Your task to perform on an android device: refresh tabs in the chrome app Image 0: 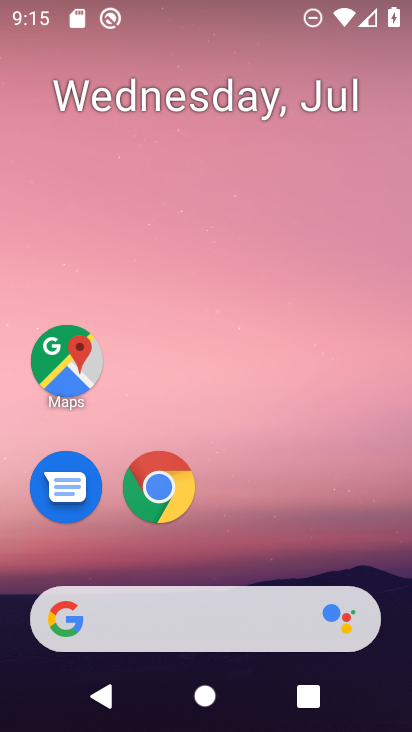
Step 0: drag from (401, 564) to (373, 23)
Your task to perform on an android device: refresh tabs in the chrome app Image 1: 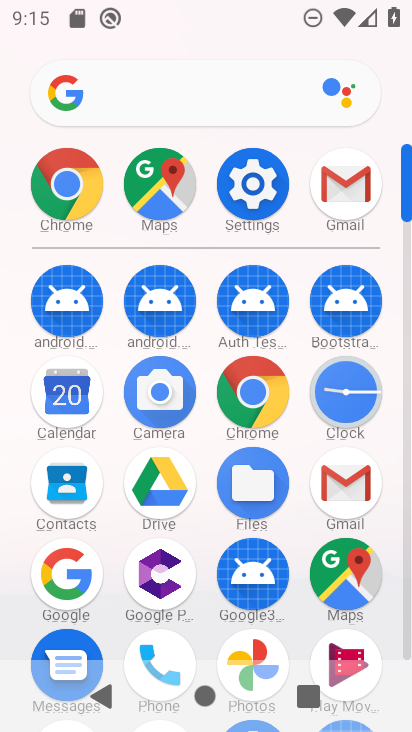
Step 1: click (258, 387)
Your task to perform on an android device: refresh tabs in the chrome app Image 2: 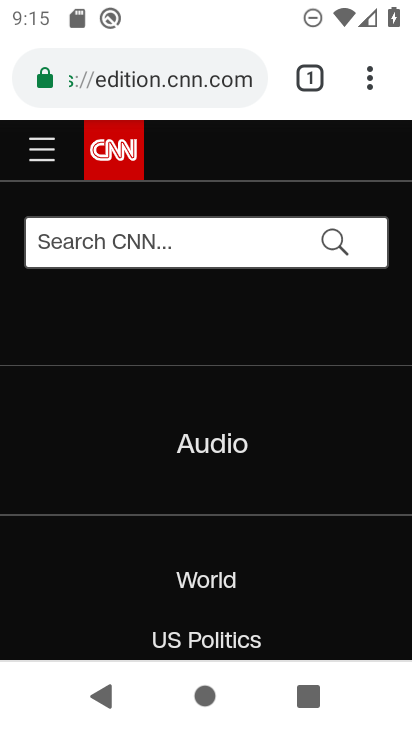
Step 2: click (368, 85)
Your task to perform on an android device: refresh tabs in the chrome app Image 3: 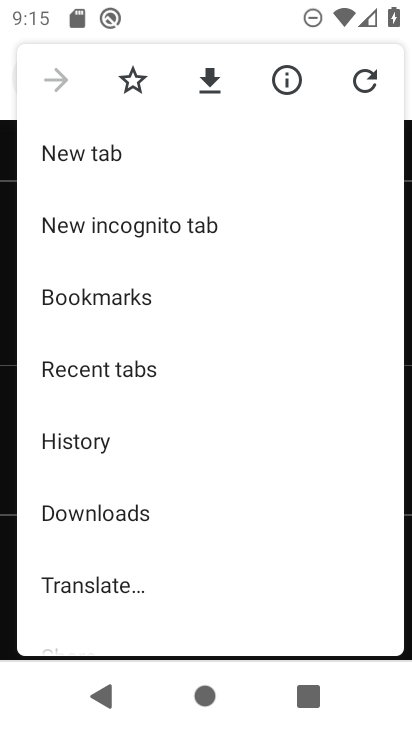
Step 3: click (363, 80)
Your task to perform on an android device: refresh tabs in the chrome app Image 4: 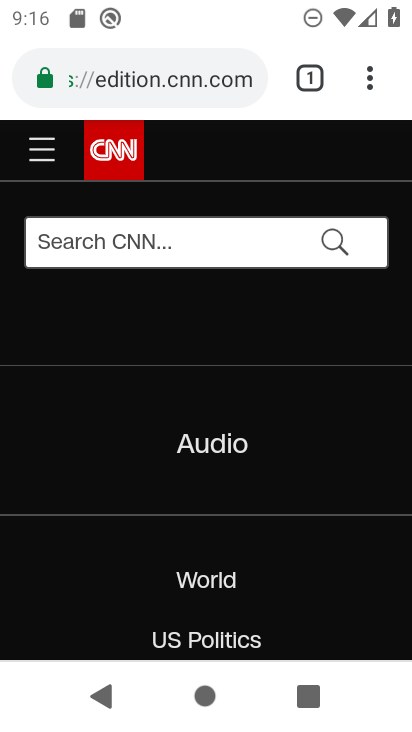
Step 4: task complete